Your task to perform on an android device: turn pop-ups on in chrome Image 0: 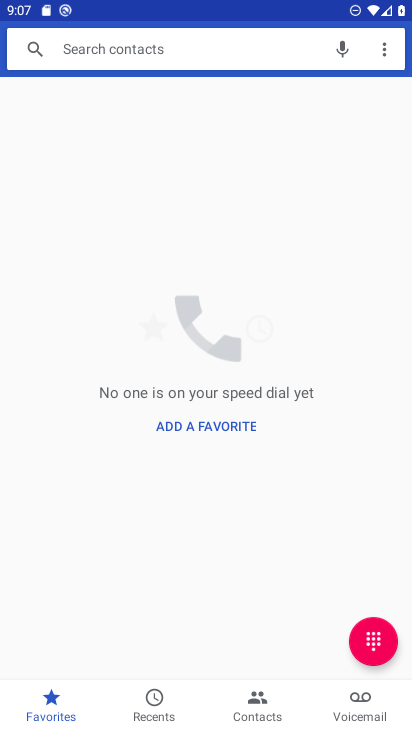
Step 0: press home button
Your task to perform on an android device: turn pop-ups on in chrome Image 1: 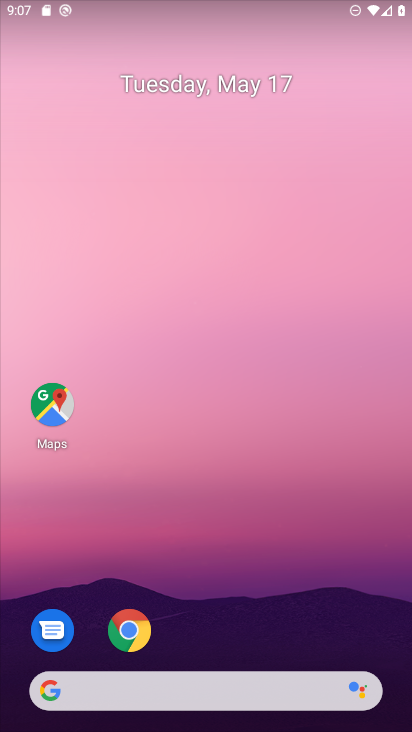
Step 1: drag from (336, 607) to (357, 167)
Your task to perform on an android device: turn pop-ups on in chrome Image 2: 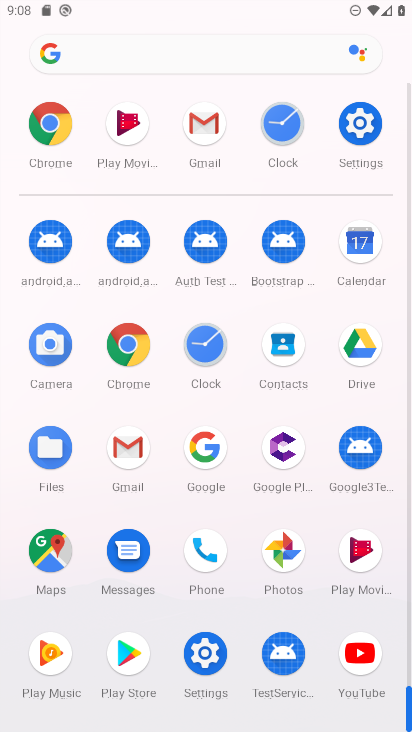
Step 2: click (126, 349)
Your task to perform on an android device: turn pop-ups on in chrome Image 3: 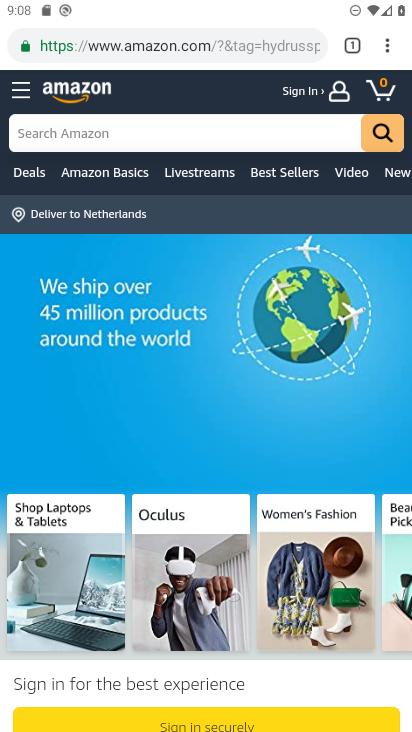
Step 3: click (389, 49)
Your task to perform on an android device: turn pop-ups on in chrome Image 4: 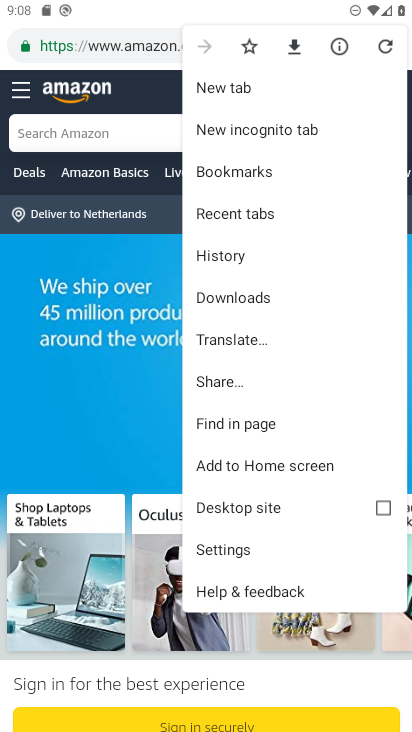
Step 4: click (252, 556)
Your task to perform on an android device: turn pop-ups on in chrome Image 5: 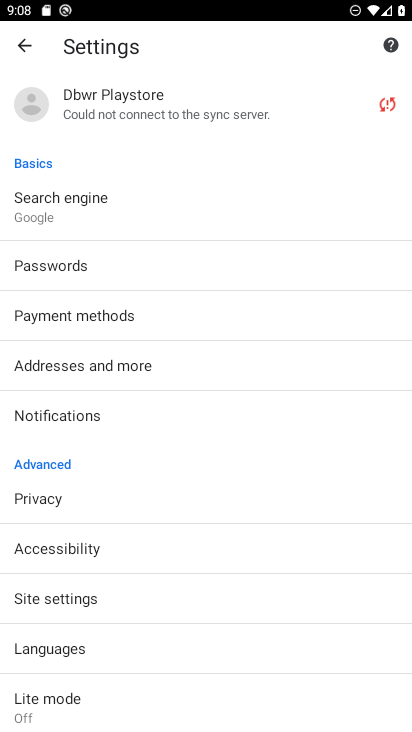
Step 5: drag from (282, 578) to (295, 427)
Your task to perform on an android device: turn pop-ups on in chrome Image 6: 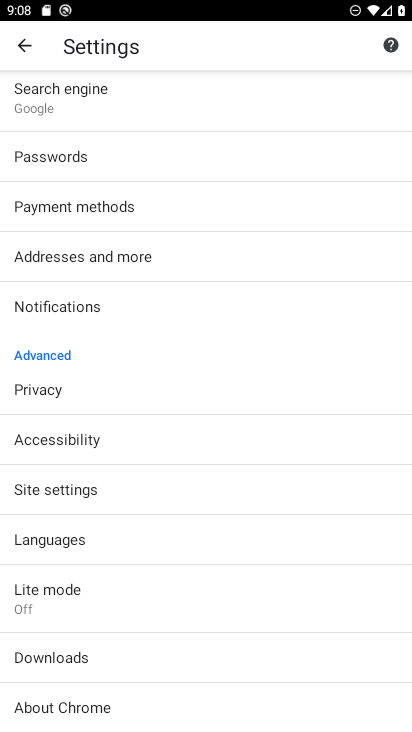
Step 6: drag from (293, 612) to (314, 464)
Your task to perform on an android device: turn pop-ups on in chrome Image 7: 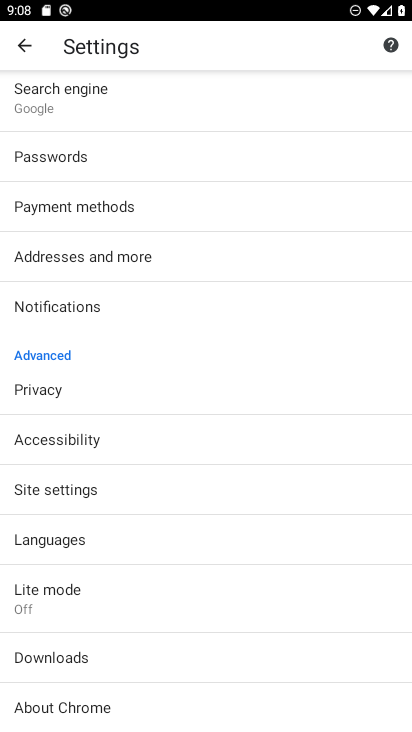
Step 7: drag from (324, 599) to (292, 430)
Your task to perform on an android device: turn pop-ups on in chrome Image 8: 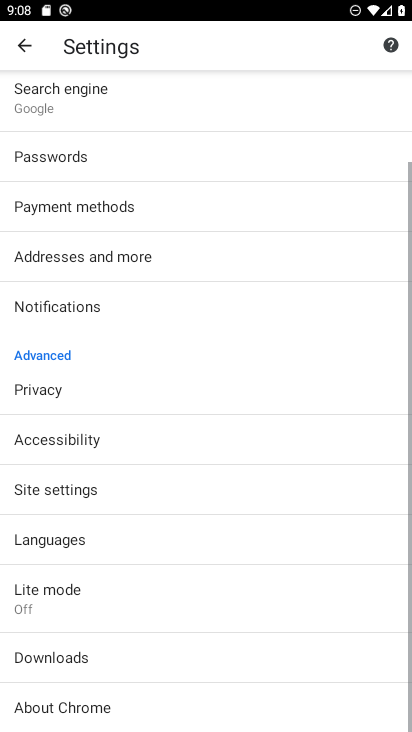
Step 8: click (281, 488)
Your task to perform on an android device: turn pop-ups on in chrome Image 9: 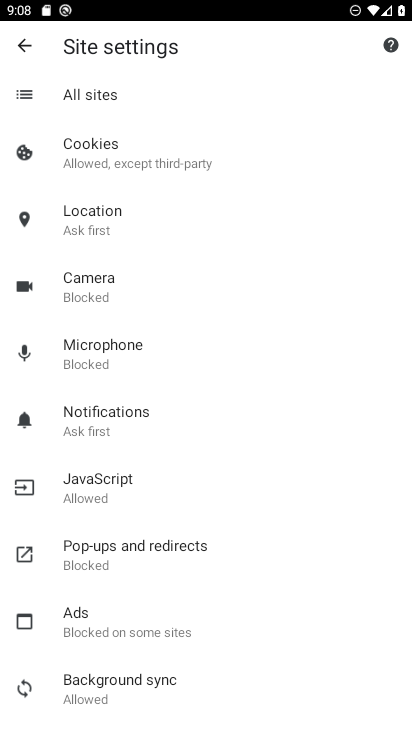
Step 9: drag from (320, 608) to (310, 458)
Your task to perform on an android device: turn pop-ups on in chrome Image 10: 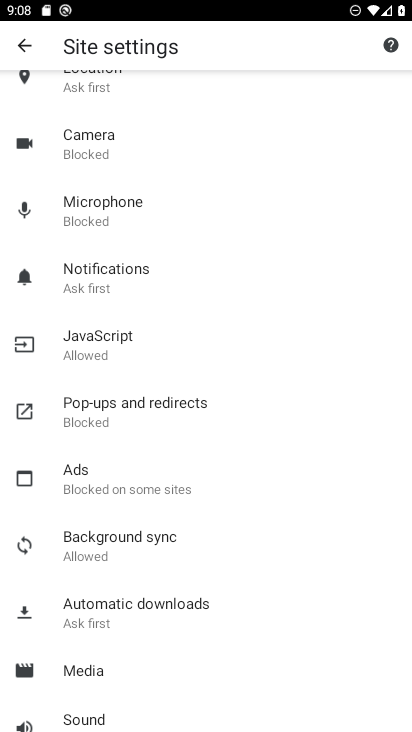
Step 10: drag from (332, 604) to (333, 472)
Your task to perform on an android device: turn pop-ups on in chrome Image 11: 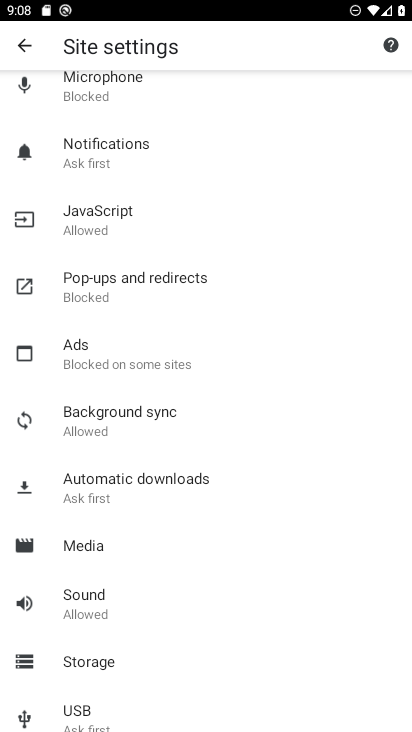
Step 11: drag from (337, 574) to (326, 342)
Your task to perform on an android device: turn pop-ups on in chrome Image 12: 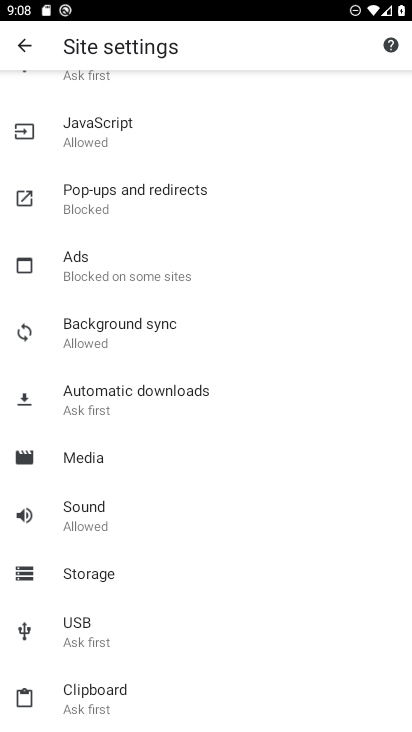
Step 12: drag from (294, 560) to (311, 405)
Your task to perform on an android device: turn pop-ups on in chrome Image 13: 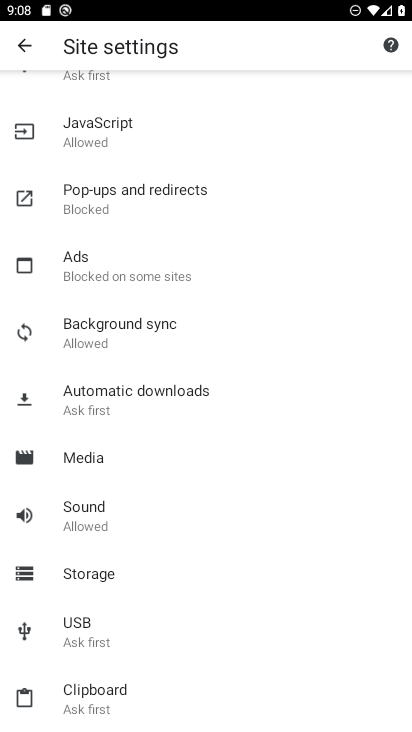
Step 13: drag from (304, 601) to (301, 444)
Your task to perform on an android device: turn pop-ups on in chrome Image 14: 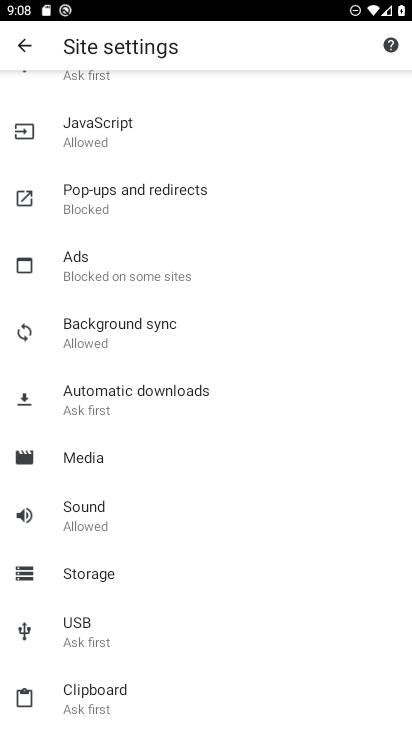
Step 14: drag from (309, 630) to (323, 401)
Your task to perform on an android device: turn pop-ups on in chrome Image 15: 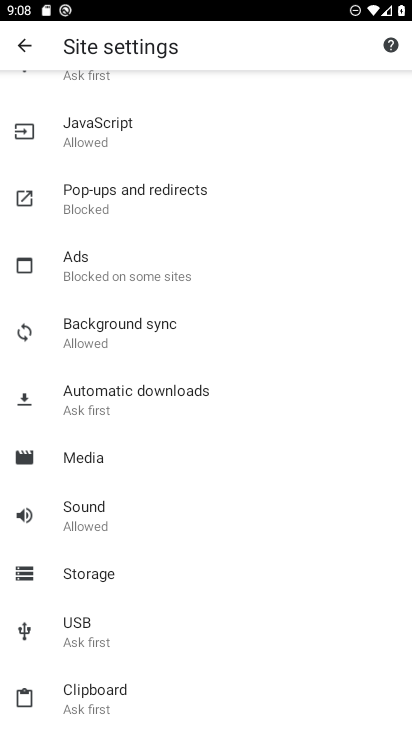
Step 15: drag from (359, 284) to (350, 488)
Your task to perform on an android device: turn pop-ups on in chrome Image 16: 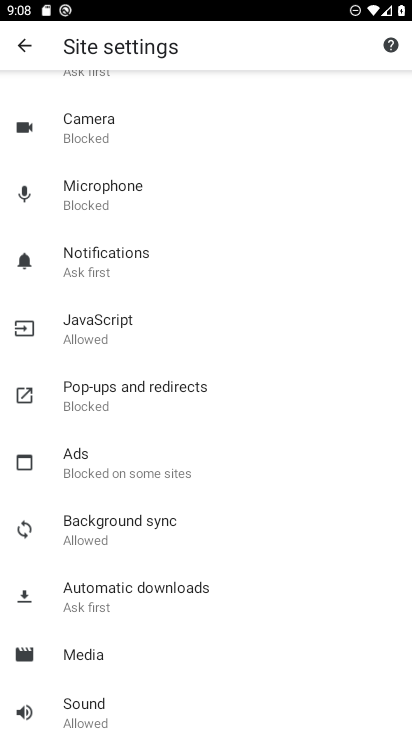
Step 16: drag from (332, 295) to (318, 425)
Your task to perform on an android device: turn pop-ups on in chrome Image 17: 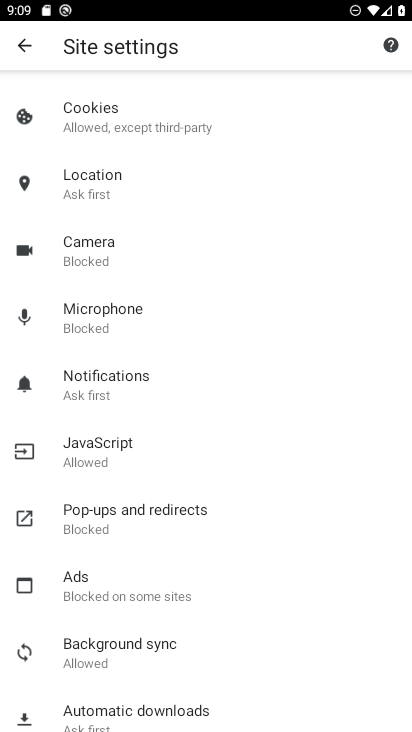
Step 17: click (167, 521)
Your task to perform on an android device: turn pop-ups on in chrome Image 18: 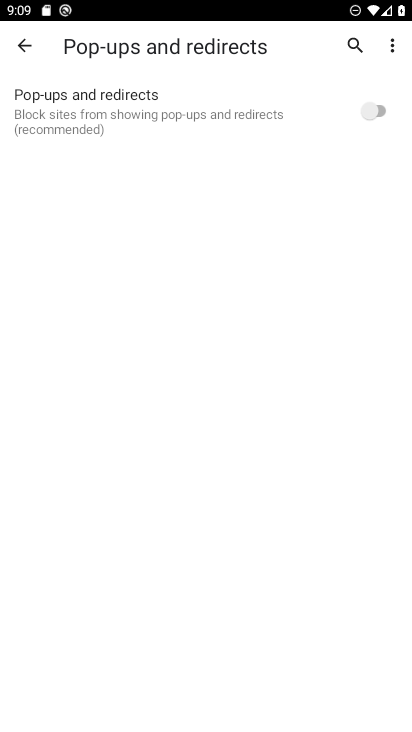
Step 18: click (378, 112)
Your task to perform on an android device: turn pop-ups on in chrome Image 19: 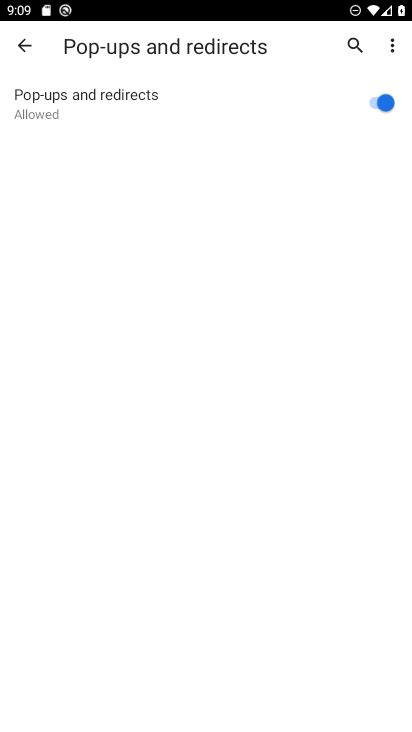
Step 19: task complete